Your task to perform on an android device: install app "Spotify" Image 0: 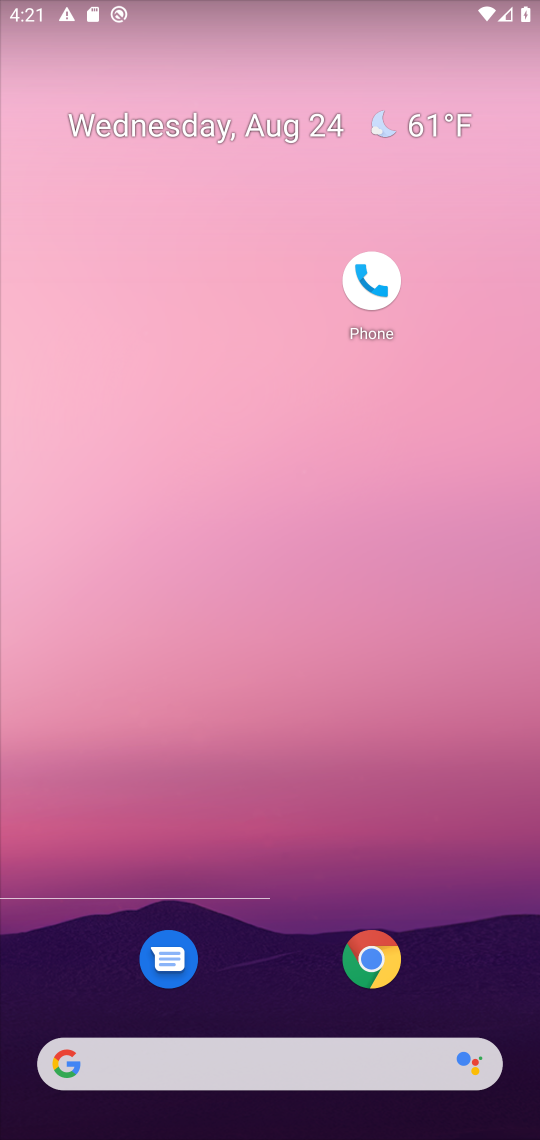
Step 0: drag from (286, 993) to (285, 313)
Your task to perform on an android device: install app "Spotify" Image 1: 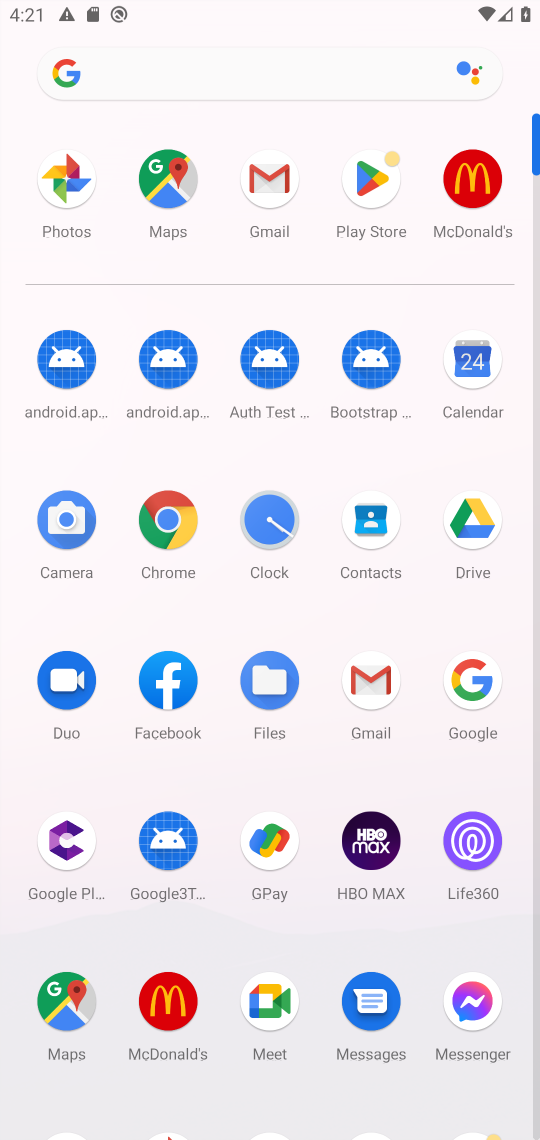
Step 1: click (351, 211)
Your task to perform on an android device: install app "Spotify" Image 2: 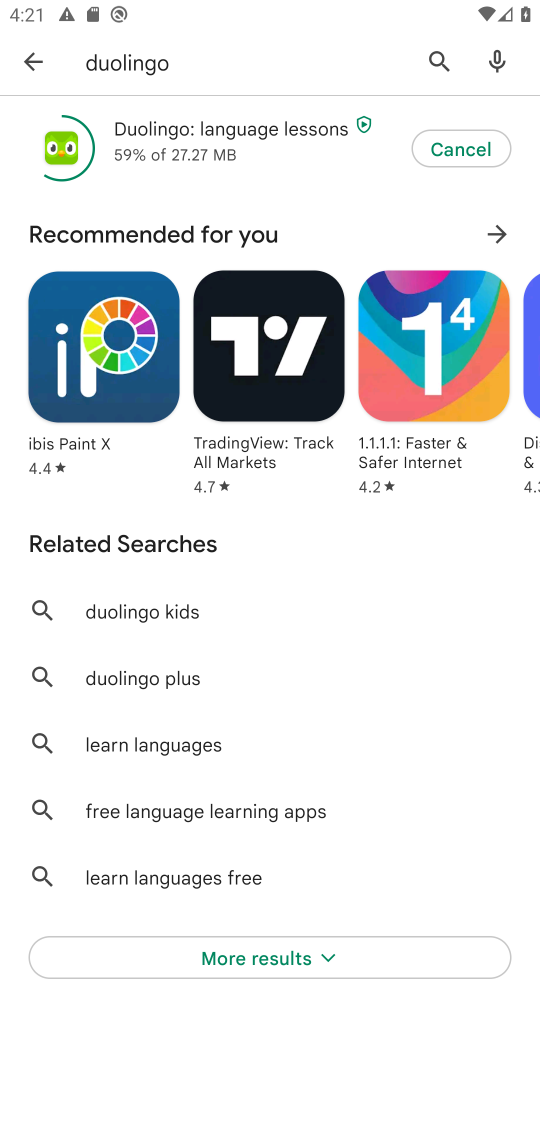
Step 2: click (427, 68)
Your task to perform on an android device: install app "Spotify" Image 3: 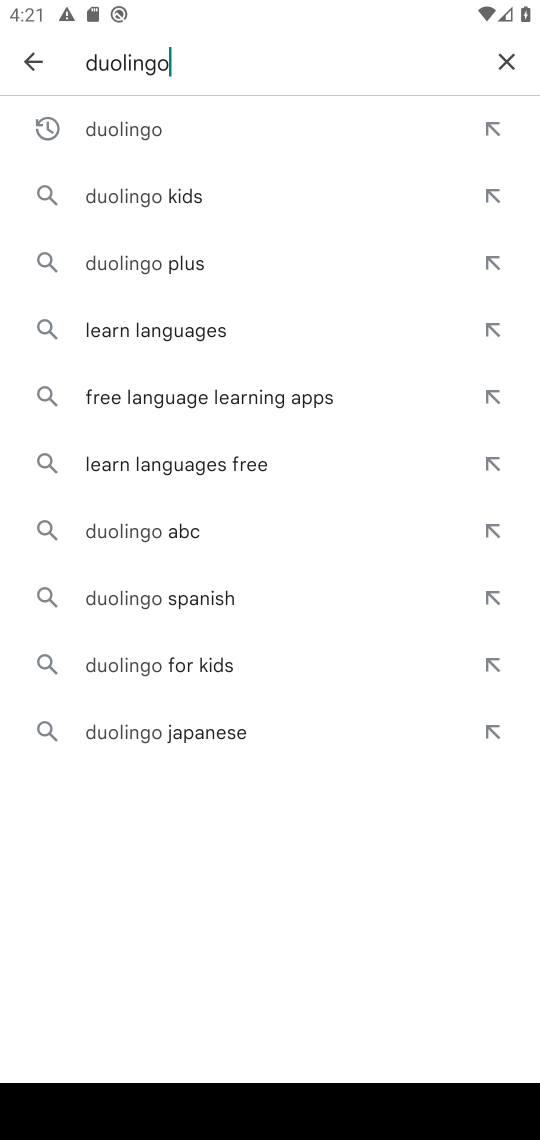
Step 3: click (488, 61)
Your task to perform on an android device: install app "Spotify" Image 4: 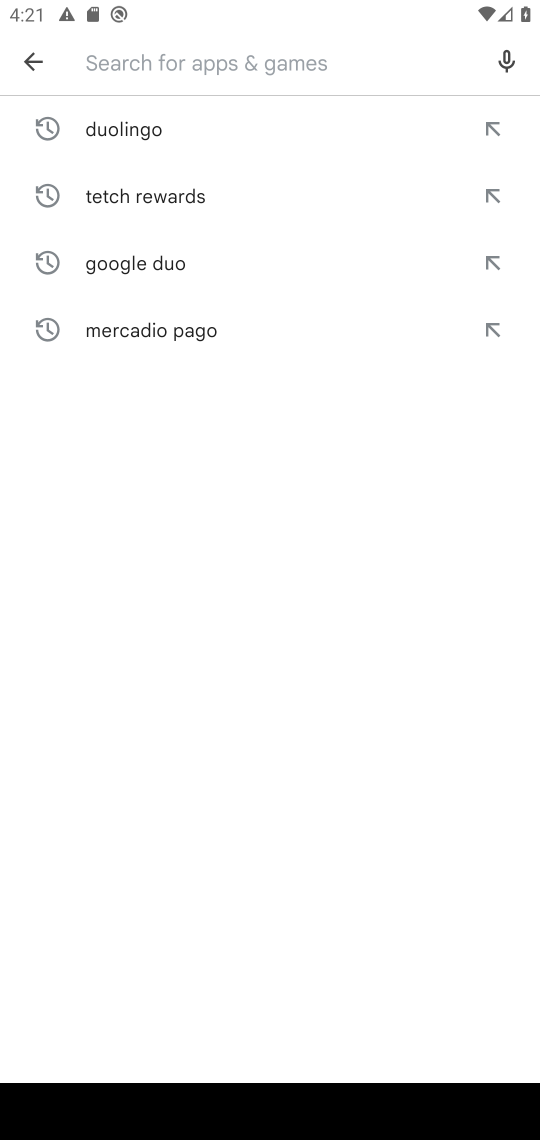
Step 4: type "spotify"
Your task to perform on an android device: install app "Spotify" Image 5: 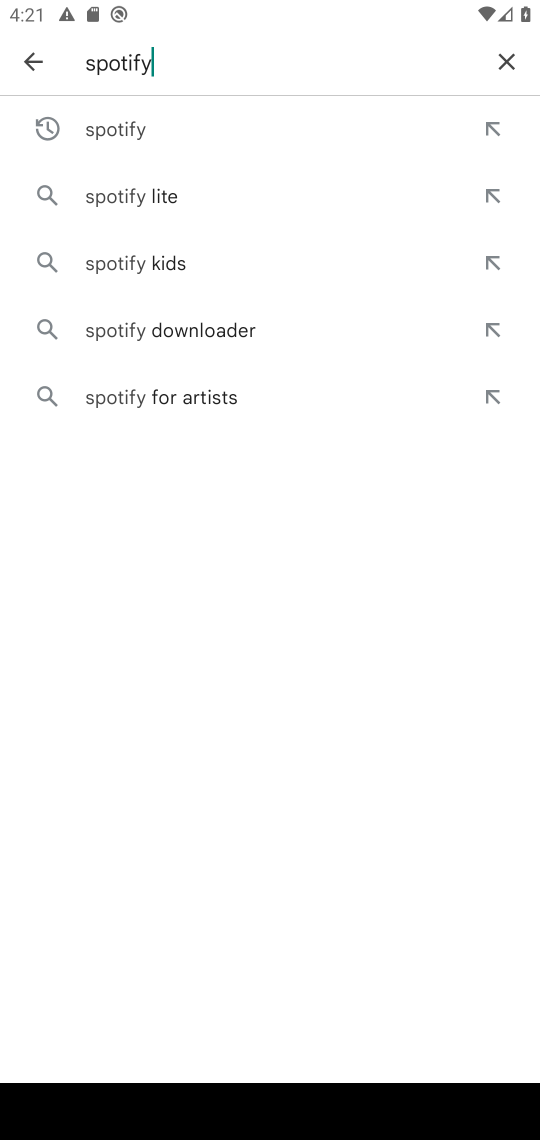
Step 5: click (110, 103)
Your task to perform on an android device: install app "Spotify" Image 6: 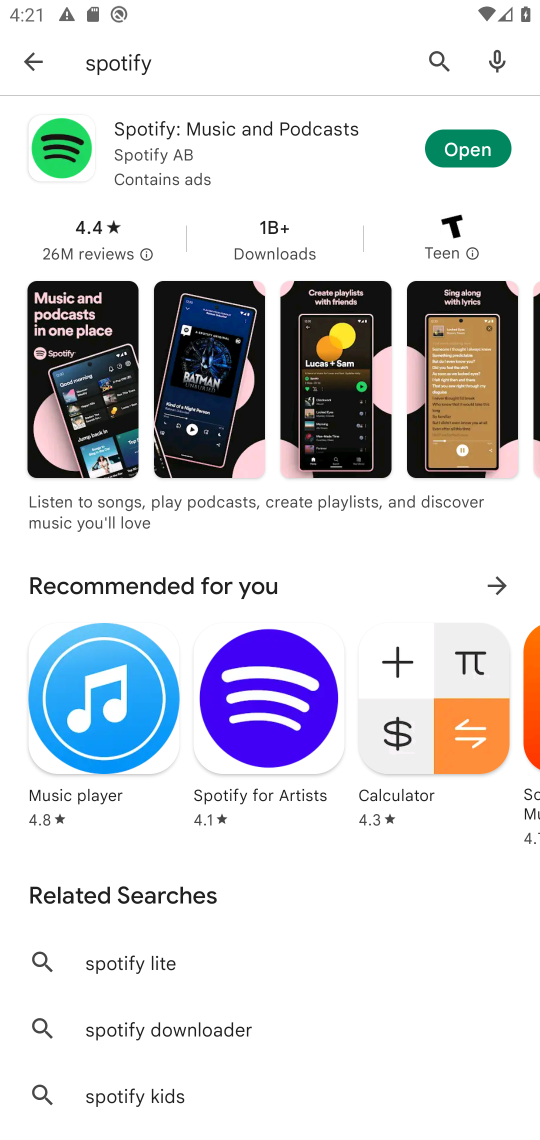
Step 6: click (428, 158)
Your task to perform on an android device: install app "Spotify" Image 7: 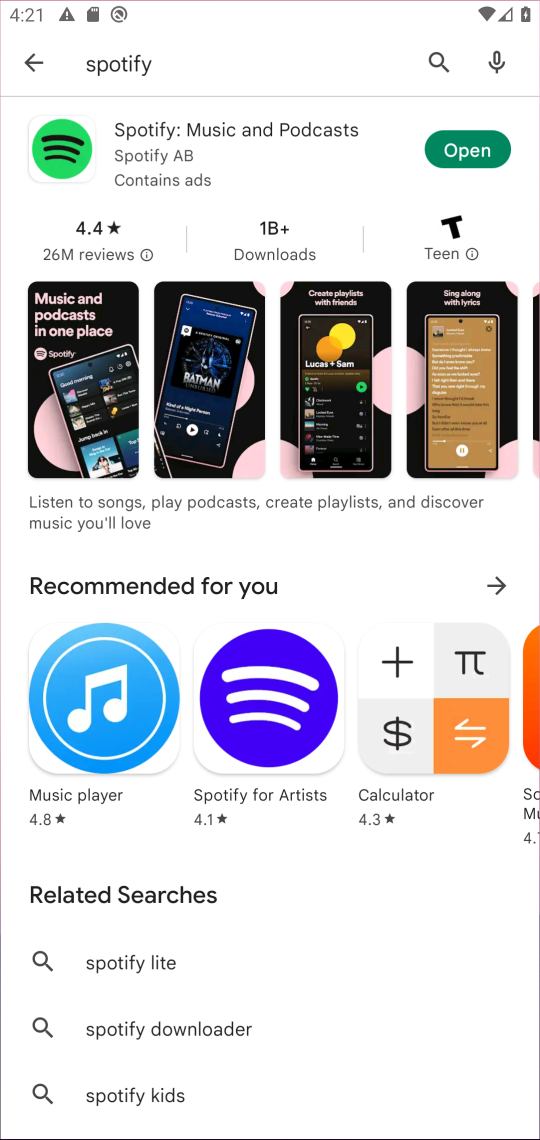
Step 7: task complete